Your task to perform on an android device: turn off airplane mode Image 0: 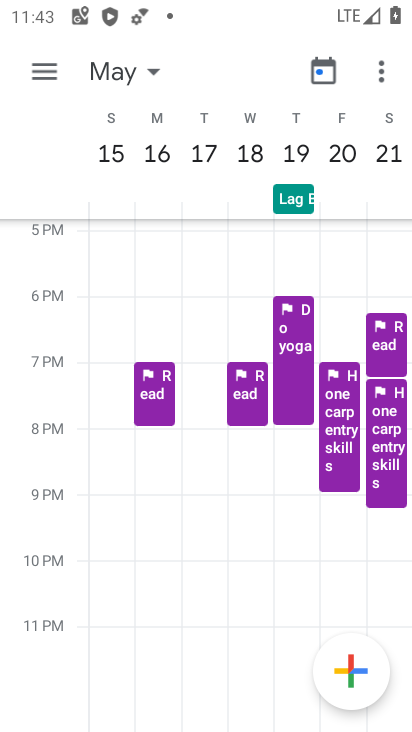
Step 0: press back button
Your task to perform on an android device: turn off airplane mode Image 1: 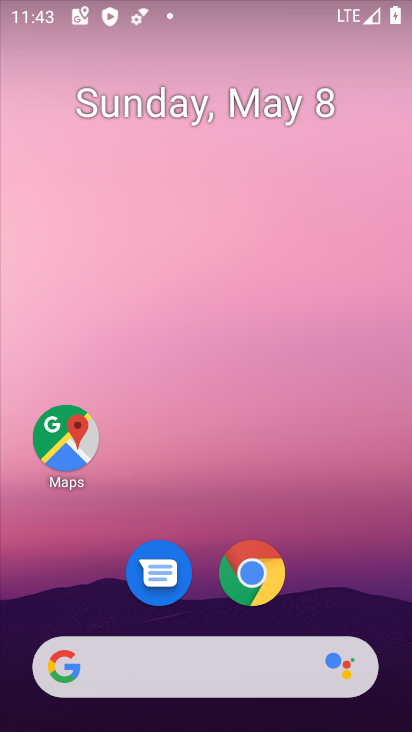
Step 1: drag from (334, 616) to (267, 16)
Your task to perform on an android device: turn off airplane mode Image 2: 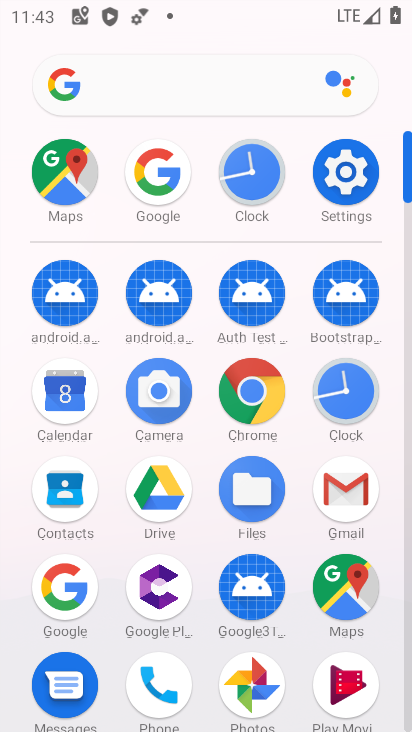
Step 2: click (347, 164)
Your task to perform on an android device: turn off airplane mode Image 3: 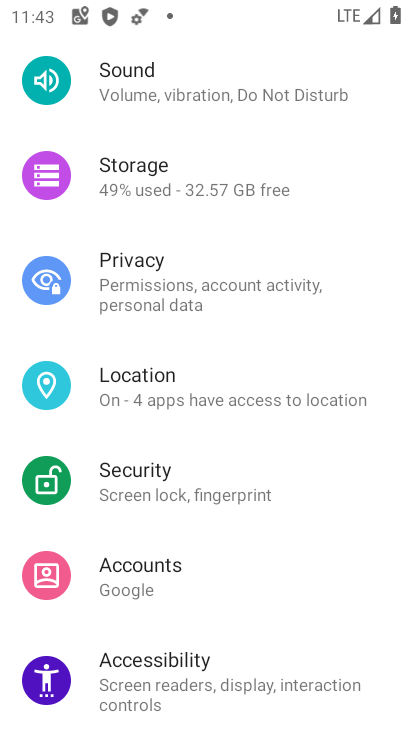
Step 3: drag from (251, 156) to (239, 579)
Your task to perform on an android device: turn off airplane mode Image 4: 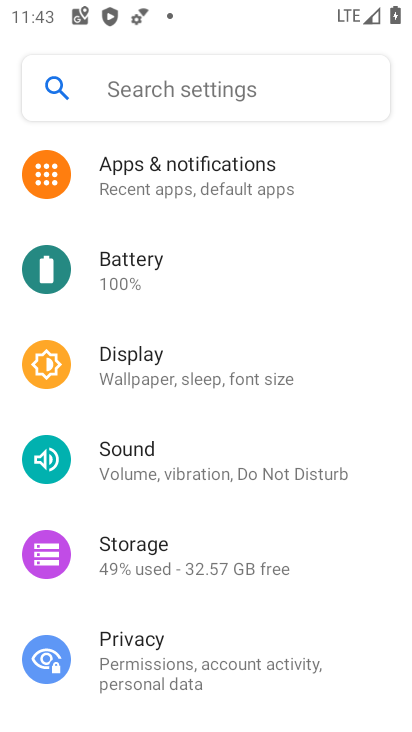
Step 4: click (229, 195)
Your task to perform on an android device: turn off airplane mode Image 5: 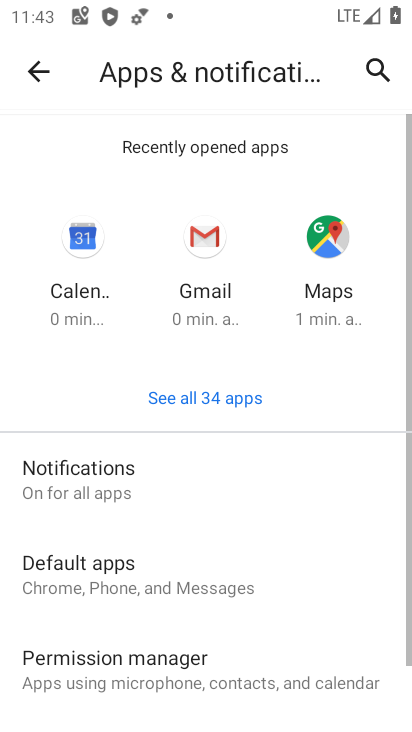
Step 5: click (41, 74)
Your task to perform on an android device: turn off airplane mode Image 6: 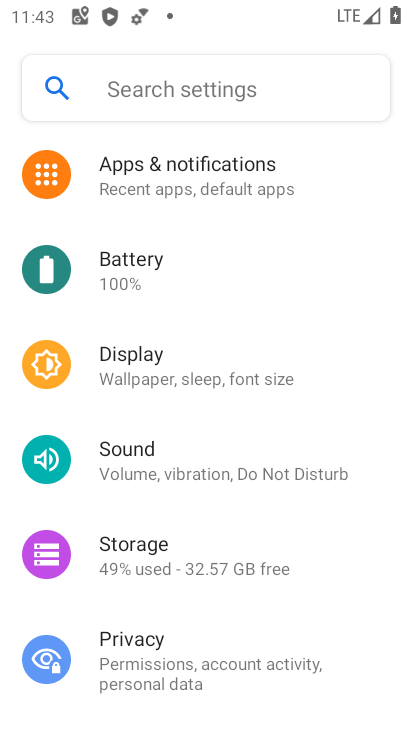
Step 6: drag from (283, 257) to (290, 603)
Your task to perform on an android device: turn off airplane mode Image 7: 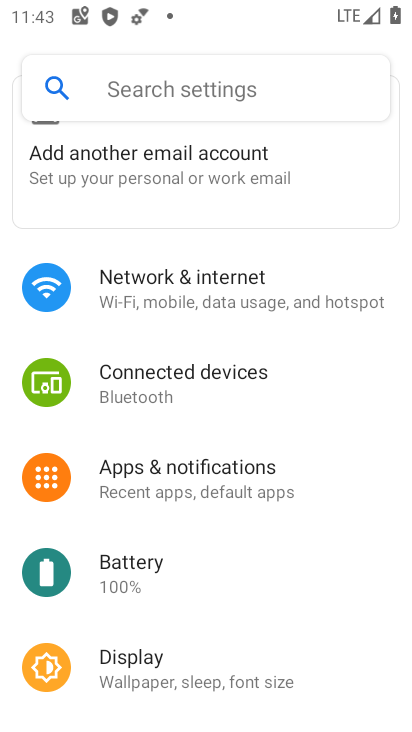
Step 7: click (232, 286)
Your task to perform on an android device: turn off airplane mode Image 8: 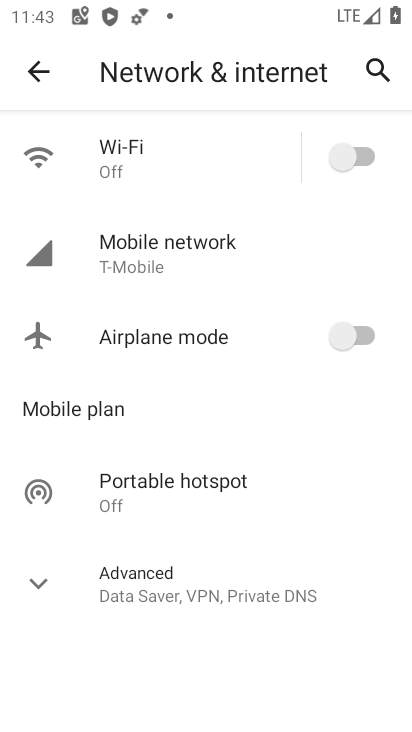
Step 8: task complete